Your task to perform on an android device: Open Chrome and go to settings Image 0: 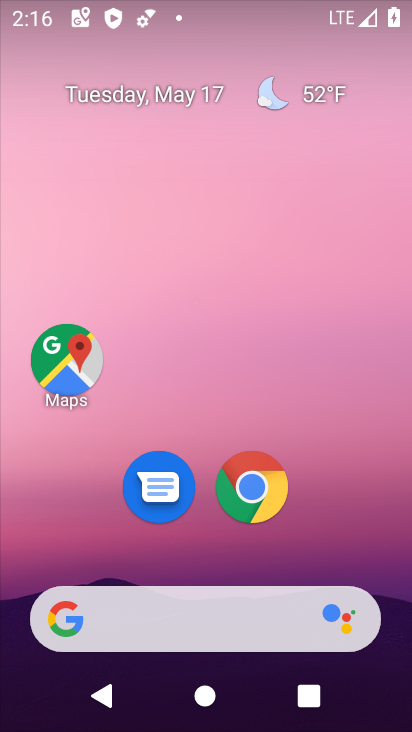
Step 0: click (266, 481)
Your task to perform on an android device: Open Chrome and go to settings Image 1: 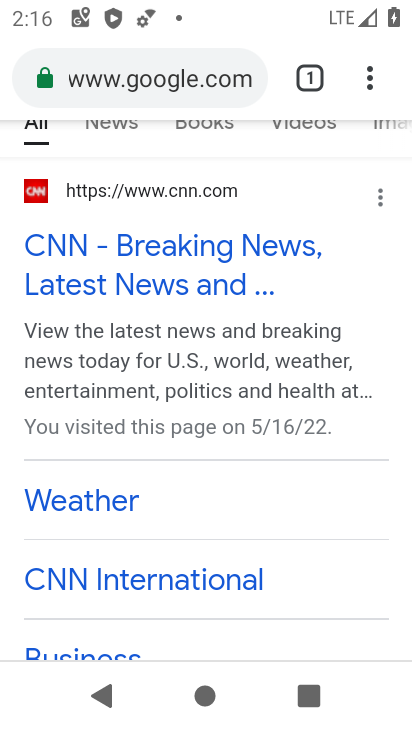
Step 1: click (367, 81)
Your task to perform on an android device: Open Chrome and go to settings Image 2: 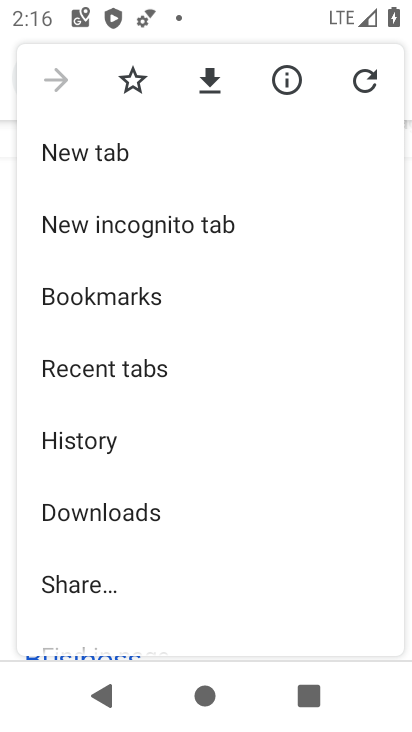
Step 2: drag from (263, 607) to (269, 395)
Your task to perform on an android device: Open Chrome and go to settings Image 3: 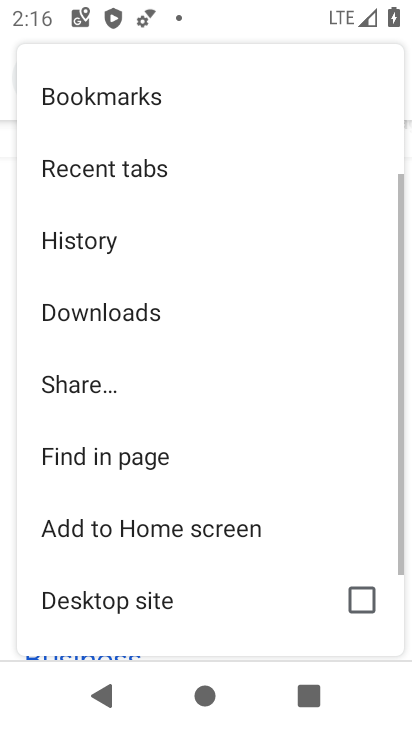
Step 3: drag from (282, 601) to (297, 416)
Your task to perform on an android device: Open Chrome and go to settings Image 4: 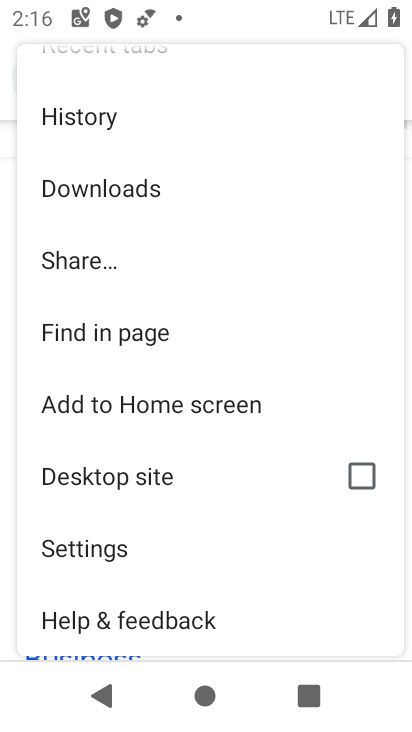
Step 4: click (60, 540)
Your task to perform on an android device: Open Chrome and go to settings Image 5: 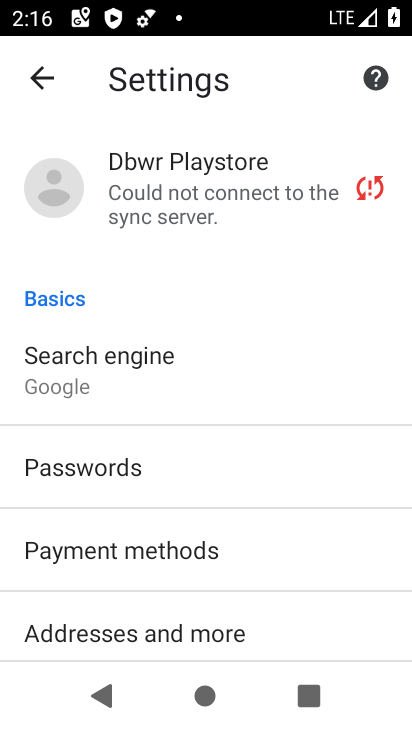
Step 5: task complete